Your task to perform on an android device: Open the Play Movies app and select the watchlist tab. Image 0: 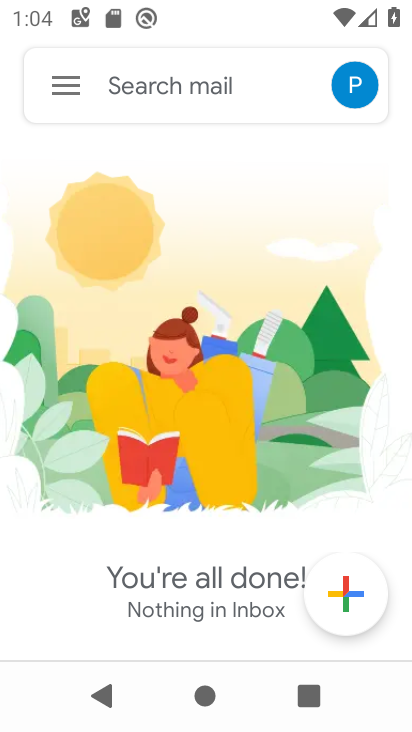
Step 0: press home button
Your task to perform on an android device: Open the Play Movies app and select the watchlist tab. Image 1: 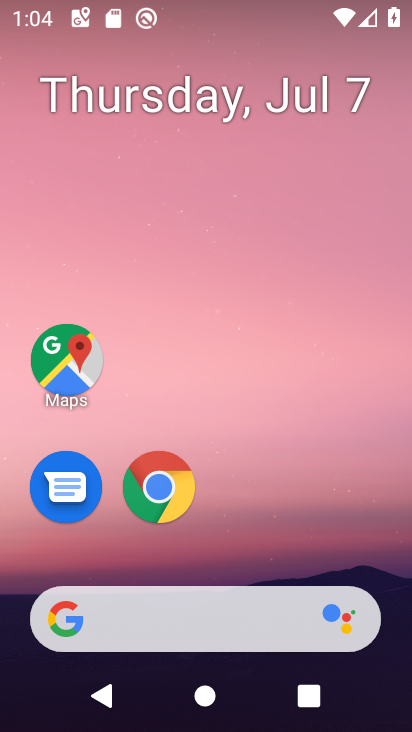
Step 1: drag from (336, 534) to (335, 100)
Your task to perform on an android device: Open the Play Movies app and select the watchlist tab. Image 2: 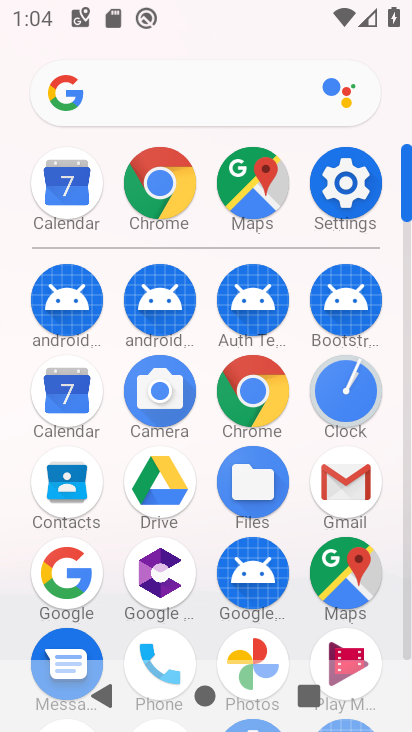
Step 2: drag from (301, 609) to (294, 341)
Your task to perform on an android device: Open the Play Movies app and select the watchlist tab. Image 3: 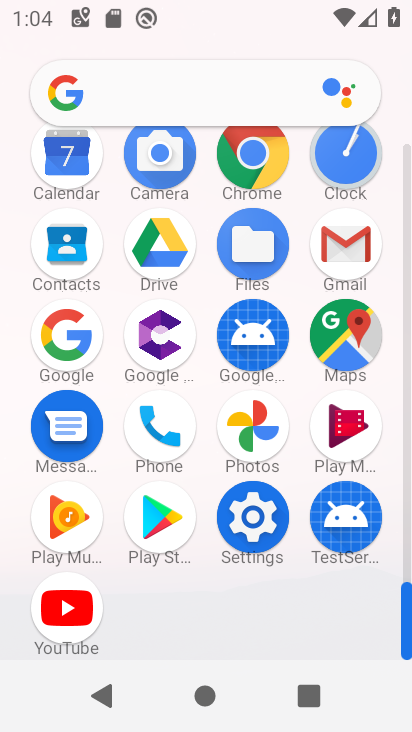
Step 3: click (357, 434)
Your task to perform on an android device: Open the Play Movies app and select the watchlist tab. Image 4: 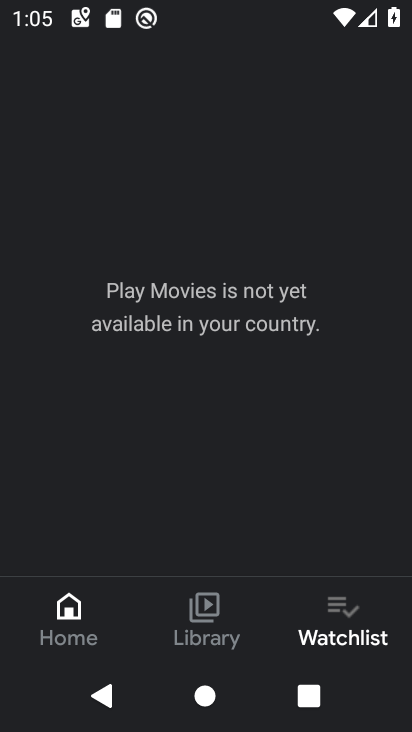
Step 4: task complete